Your task to perform on an android device: turn vacation reply on in the gmail app Image 0: 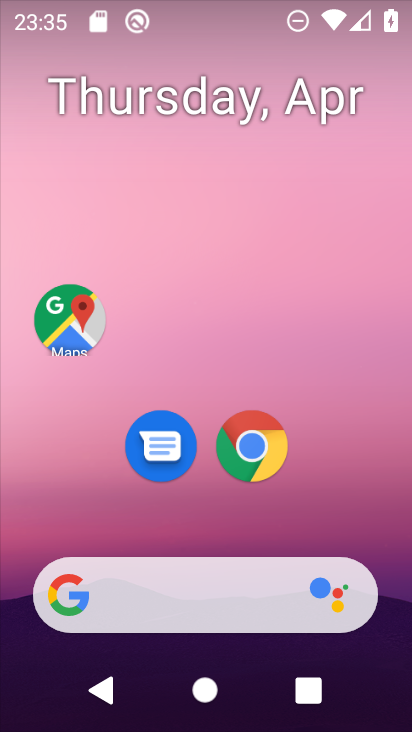
Step 0: drag from (212, 512) to (195, 95)
Your task to perform on an android device: turn vacation reply on in the gmail app Image 1: 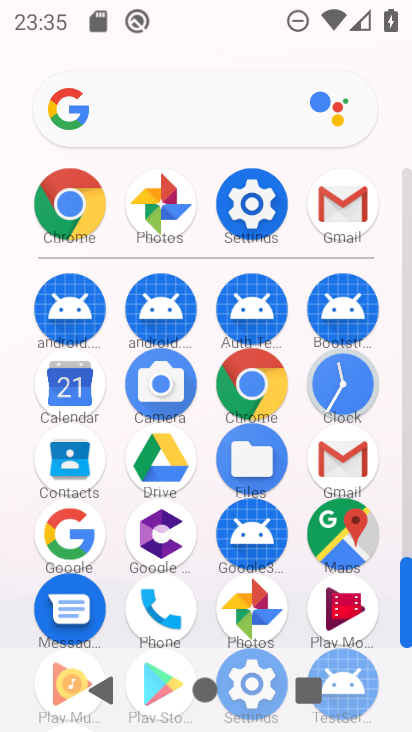
Step 1: click (340, 450)
Your task to perform on an android device: turn vacation reply on in the gmail app Image 2: 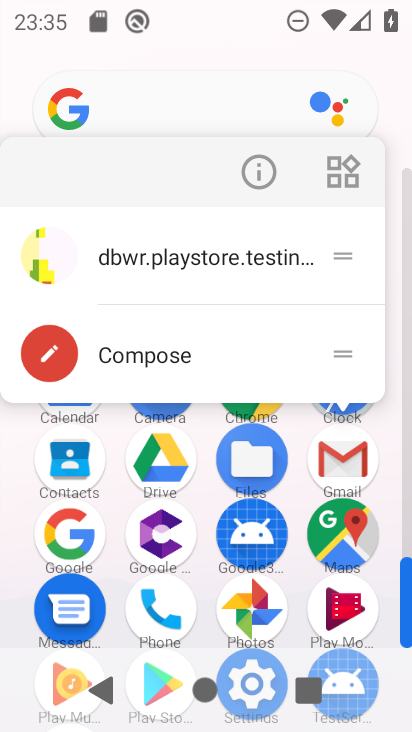
Step 2: click (278, 174)
Your task to perform on an android device: turn vacation reply on in the gmail app Image 3: 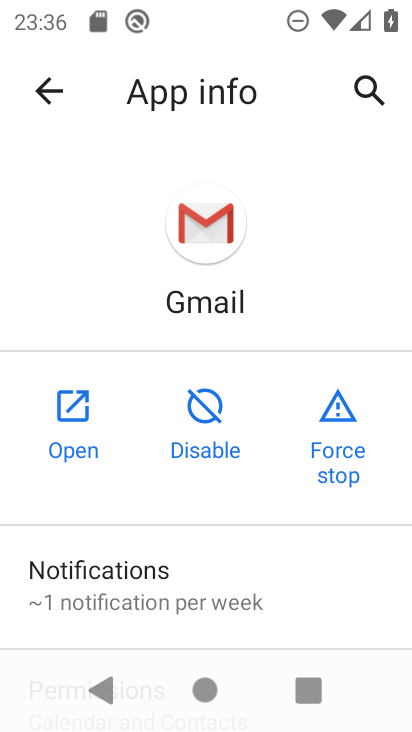
Step 3: click (68, 412)
Your task to perform on an android device: turn vacation reply on in the gmail app Image 4: 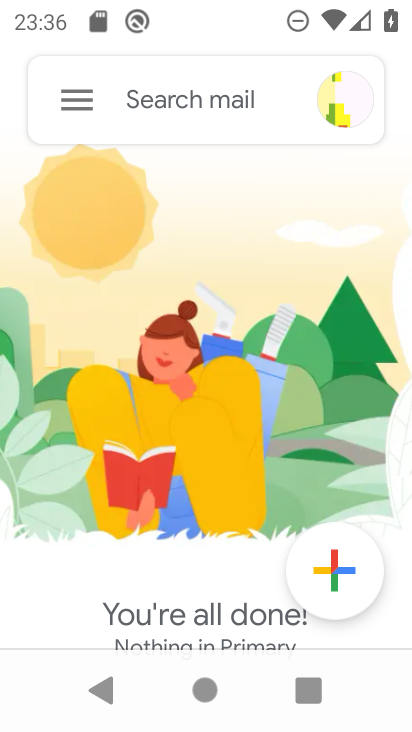
Step 4: click (82, 100)
Your task to perform on an android device: turn vacation reply on in the gmail app Image 5: 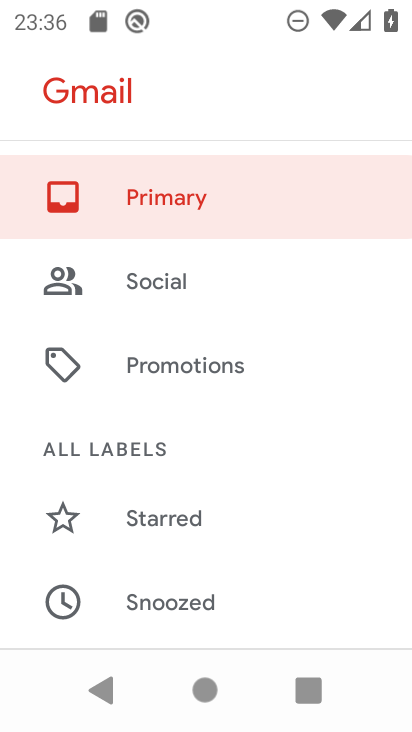
Step 5: drag from (199, 497) to (287, 109)
Your task to perform on an android device: turn vacation reply on in the gmail app Image 6: 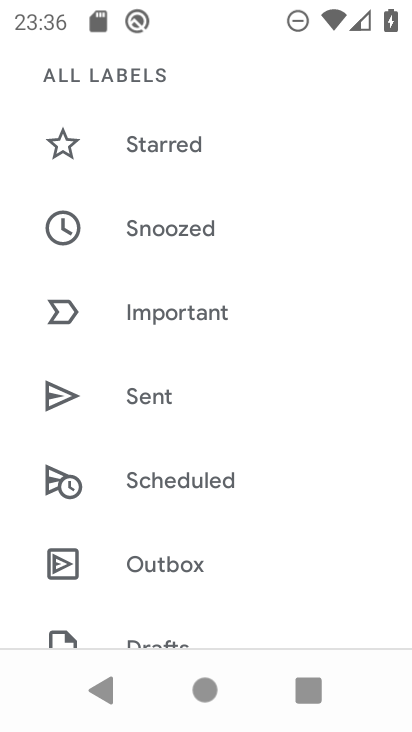
Step 6: drag from (190, 513) to (253, 100)
Your task to perform on an android device: turn vacation reply on in the gmail app Image 7: 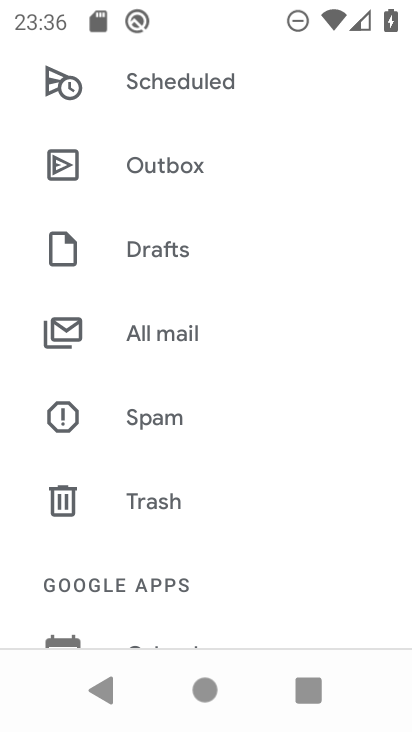
Step 7: drag from (204, 449) to (267, 112)
Your task to perform on an android device: turn vacation reply on in the gmail app Image 8: 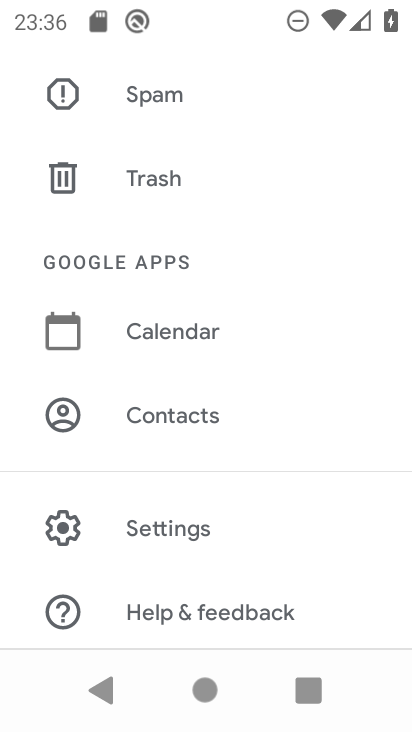
Step 8: click (221, 526)
Your task to perform on an android device: turn vacation reply on in the gmail app Image 9: 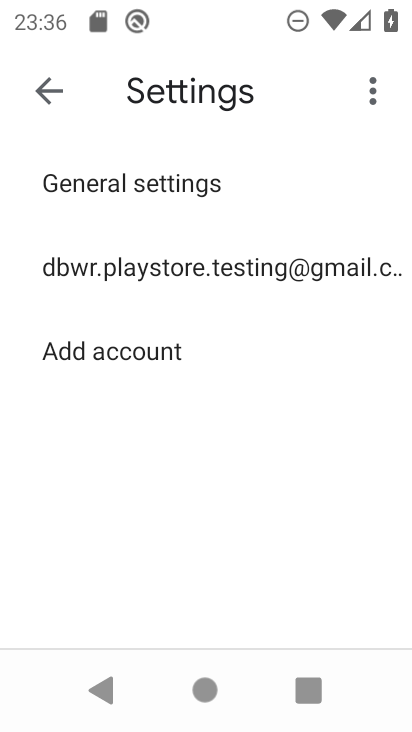
Step 9: click (206, 269)
Your task to perform on an android device: turn vacation reply on in the gmail app Image 10: 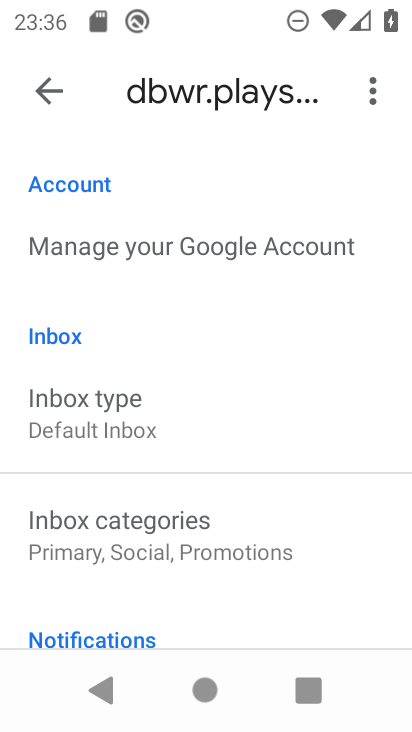
Step 10: drag from (214, 492) to (229, 200)
Your task to perform on an android device: turn vacation reply on in the gmail app Image 11: 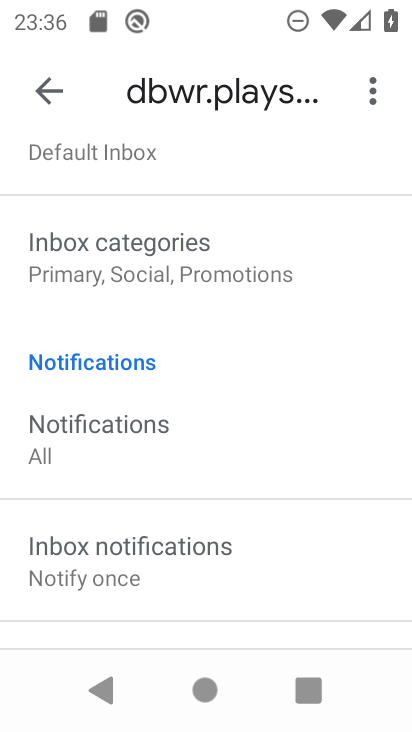
Step 11: drag from (187, 604) to (261, 230)
Your task to perform on an android device: turn vacation reply on in the gmail app Image 12: 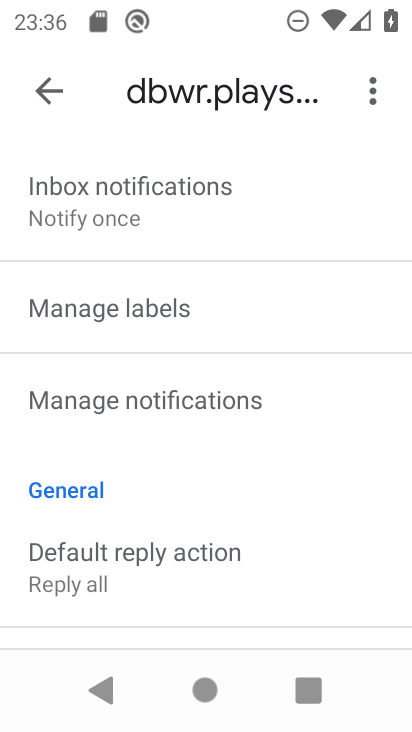
Step 12: drag from (204, 604) to (296, 164)
Your task to perform on an android device: turn vacation reply on in the gmail app Image 13: 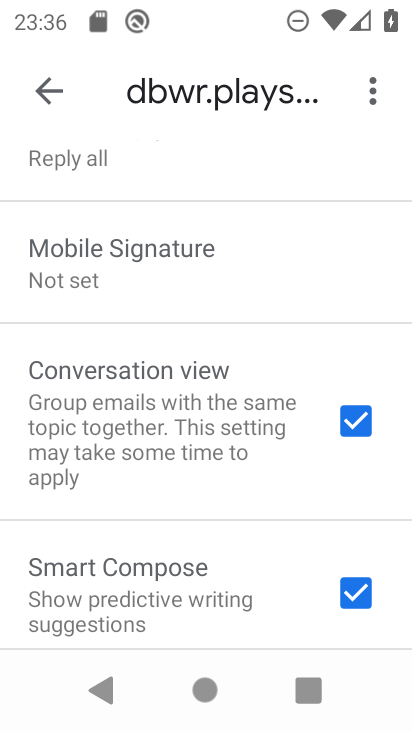
Step 13: drag from (237, 596) to (331, 209)
Your task to perform on an android device: turn vacation reply on in the gmail app Image 14: 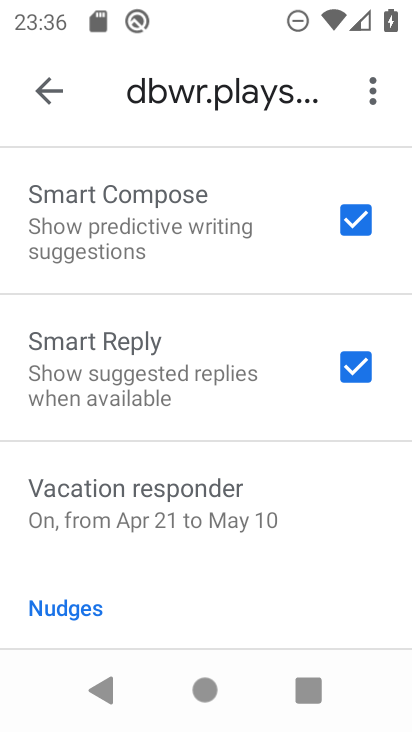
Step 14: drag from (206, 604) to (275, 314)
Your task to perform on an android device: turn vacation reply on in the gmail app Image 15: 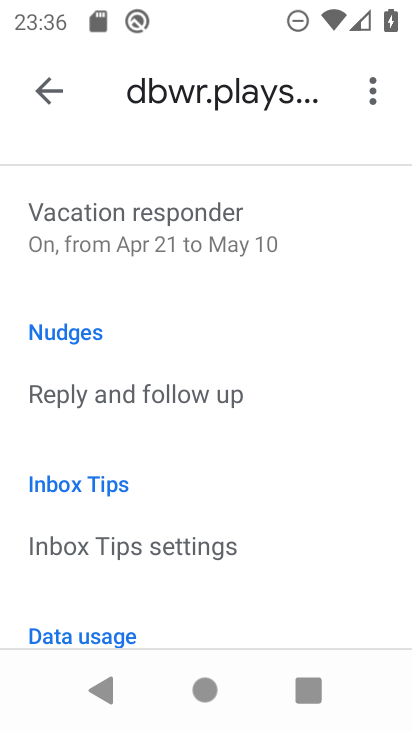
Step 15: click (203, 252)
Your task to perform on an android device: turn vacation reply on in the gmail app Image 16: 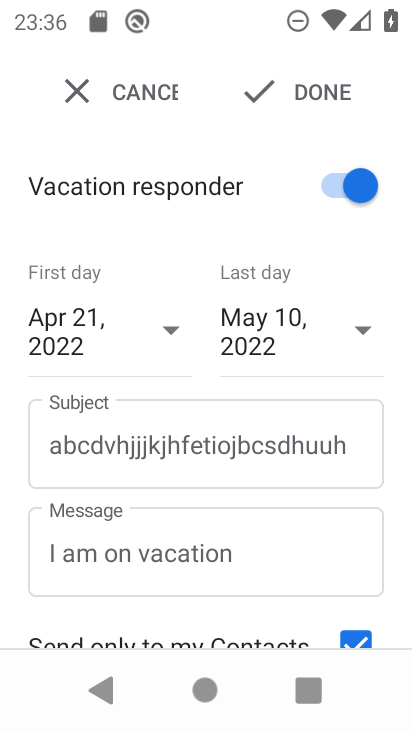
Step 16: click (312, 83)
Your task to perform on an android device: turn vacation reply on in the gmail app Image 17: 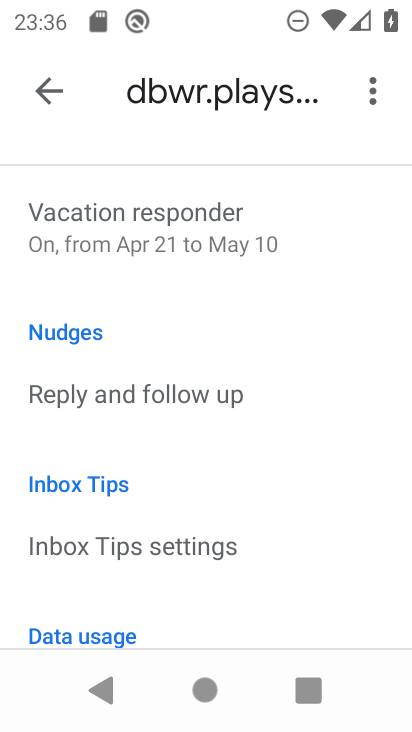
Step 17: task complete